Your task to perform on an android device: find snoozed emails in the gmail app Image 0: 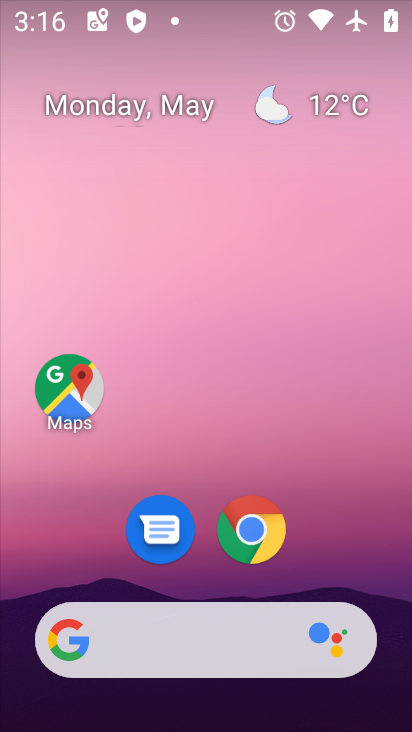
Step 0: drag from (316, 570) to (317, 63)
Your task to perform on an android device: find snoozed emails in the gmail app Image 1: 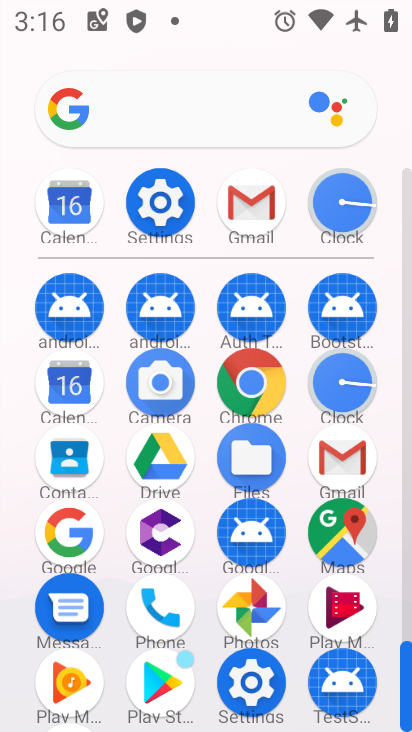
Step 1: click (328, 461)
Your task to perform on an android device: find snoozed emails in the gmail app Image 2: 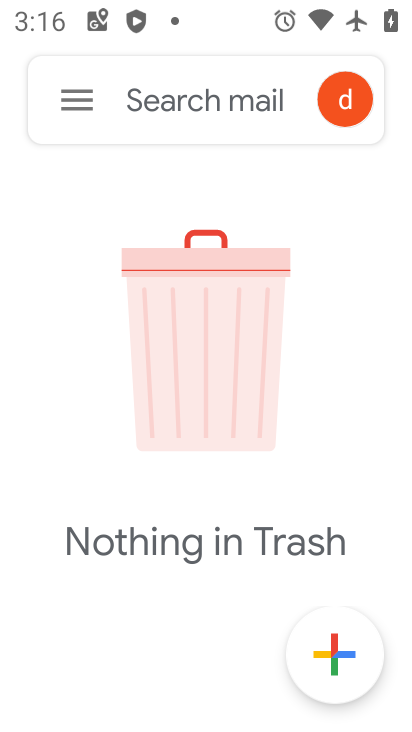
Step 2: click (67, 107)
Your task to perform on an android device: find snoozed emails in the gmail app Image 3: 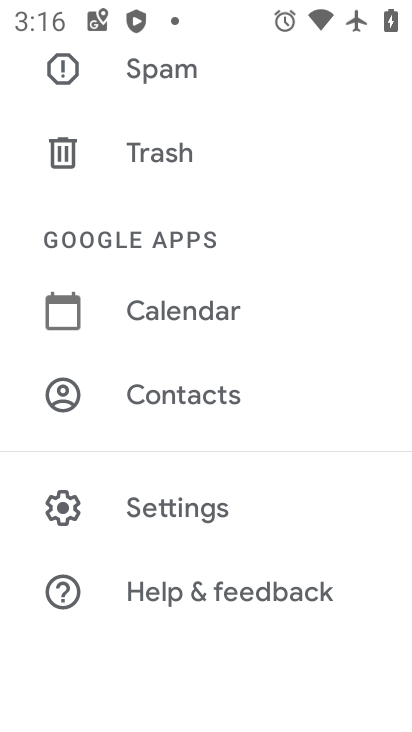
Step 3: drag from (158, 200) to (176, 482)
Your task to perform on an android device: find snoozed emails in the gmail app Image 4: 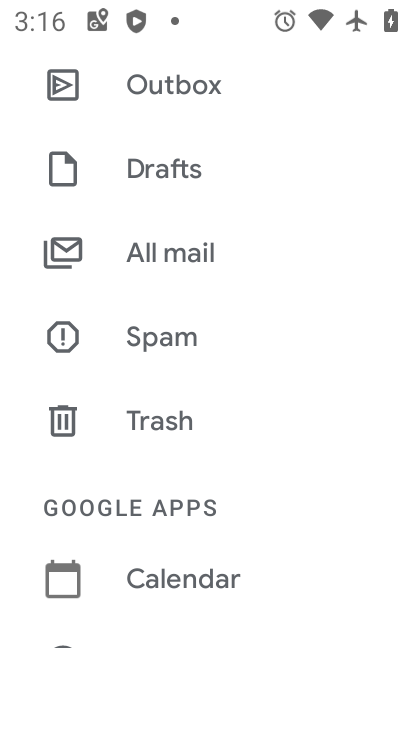
Step 4: drag from (191, 212) to (191, 476)
Your task to perform on an android device: find snoozed emails in the gmail app Image 5: 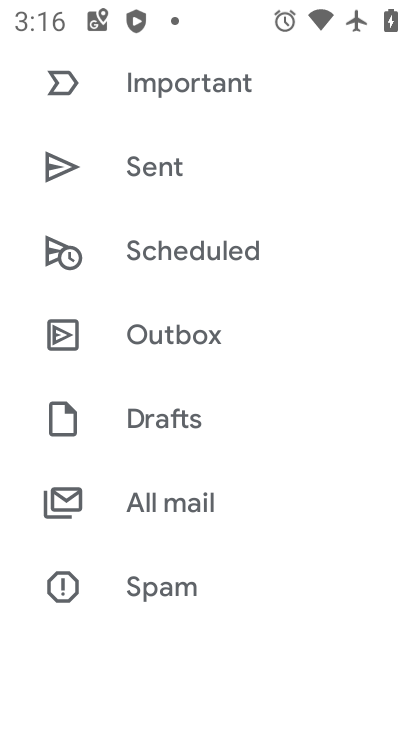
Step 5: drag from (199, 197) to (184, 460)
Your task to perform on an android device: find snoozed emails in the gmail app Image 6: 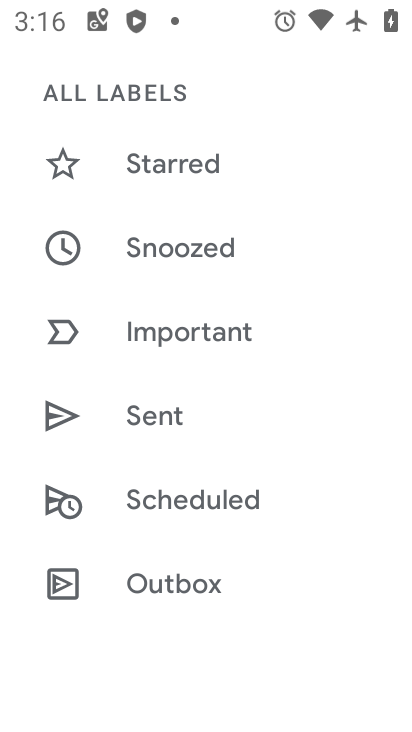
Step 6: click (158, 240)
Your task to perform on an android device: find snoozed emails in the gmail app Image 7: 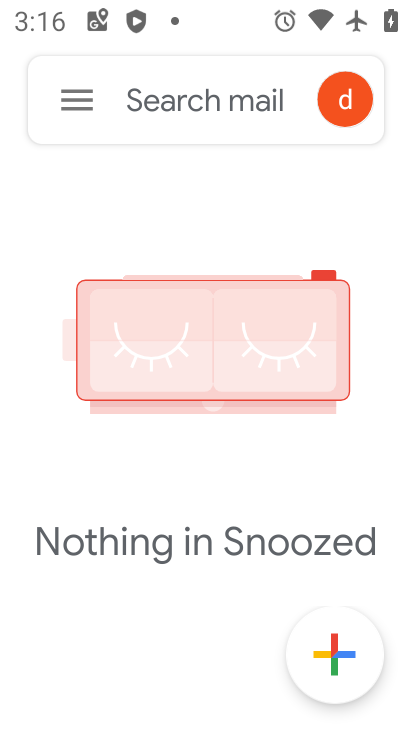
Step 7: task complete